Your task to perform on an android device: turn off smart reply in the gmail app Image 0: 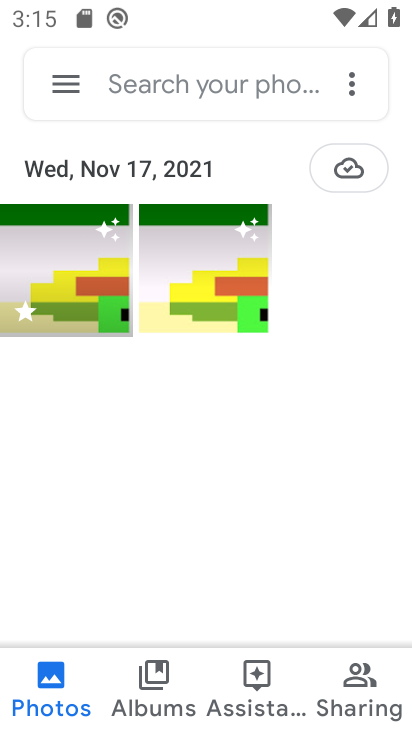
Step 0: press home button
Your task to perform on an android device: turn off smart reply in the gmail app Image 1: 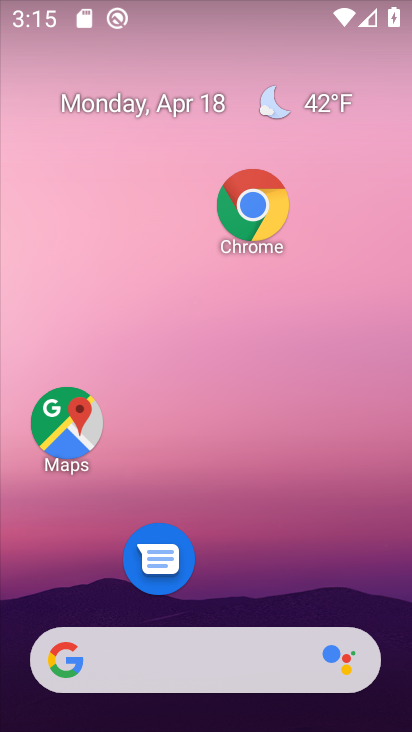
Step 1: drag from (169, 608) to (236, 219)
Your task to perform on an android device: turn off smart reply in the gmail app Image 2: 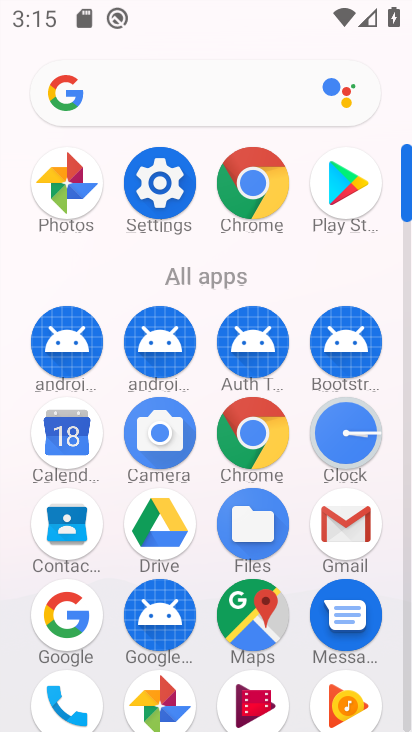
Step 2: click (324, 498)
Your task to perform on an android device: turn off smart reply in the gmail app Image 3: 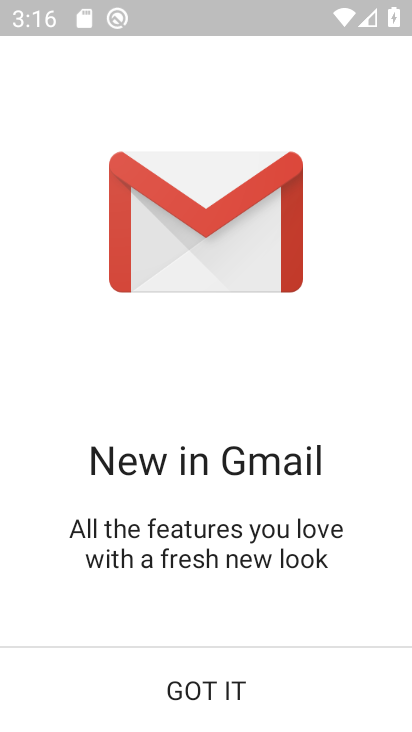
Step 3: click (219, 693)
Your task to perform on an android device: turn off smart reply in the gmail app Image 4: 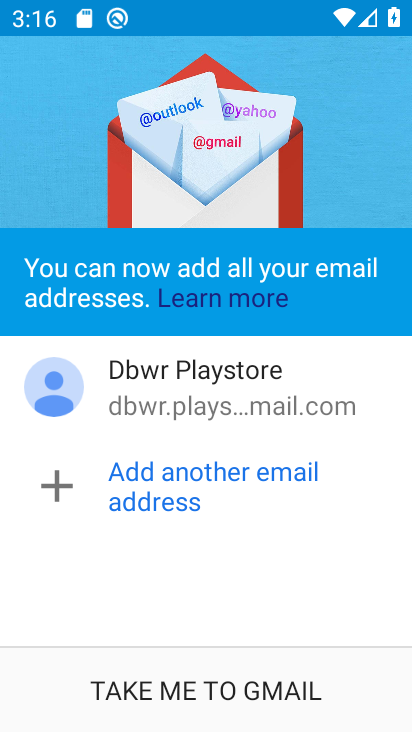
Step 4: click (230, 690)
Your task to perform on an android device: turn off smart reply in the gmail app Image 5: 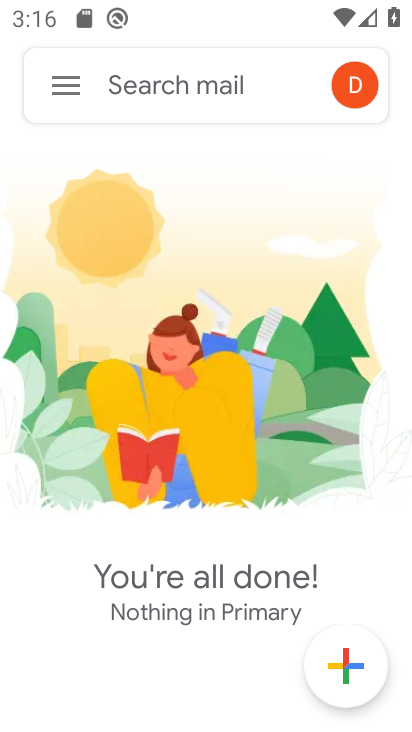
Step 5: click (62, 87)
Your task to perform on an android device: turn off smart reply in the gmail app Image 6: 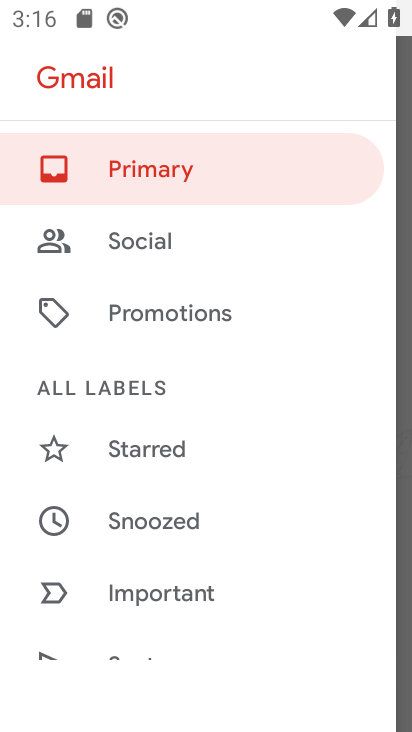
Step 6: drag from (140, 539) to (254, 222)
Your task to perform on an android device: turn off smart reply in the gmail app Image 7: 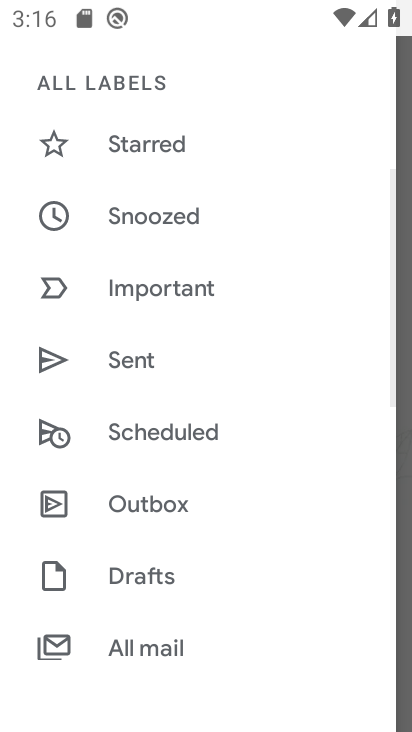
Step 7: drag from (283, 371) to (291, 178)
Your task to perform on an android device: turn off smart reply in the gmail app Image 8: 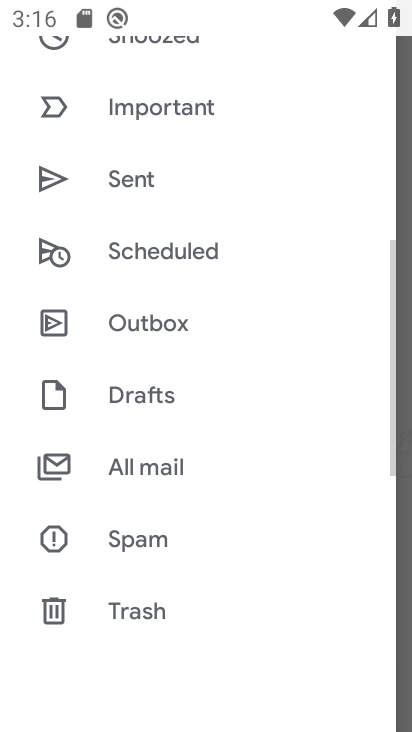
Step 8: drag from (273, 458) to (289, 172)
Your task to perform on an android device: turn off smart reply in the gmail app Image 9: 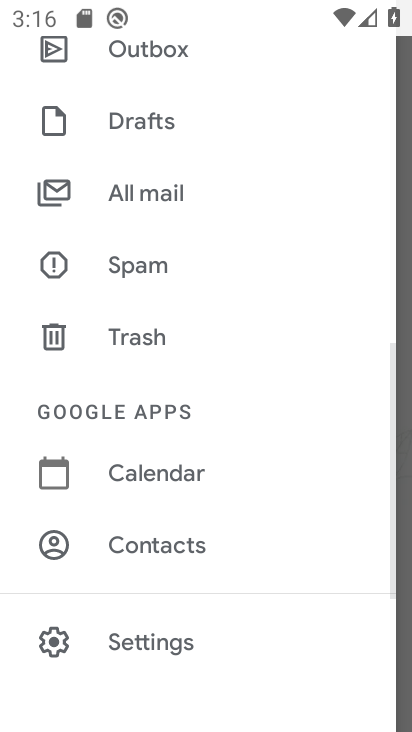
Step 9: drag from (183, 539) to (212, 322)
Your task to perform on an android device: turn off smart reply in the gmail app Image 10: 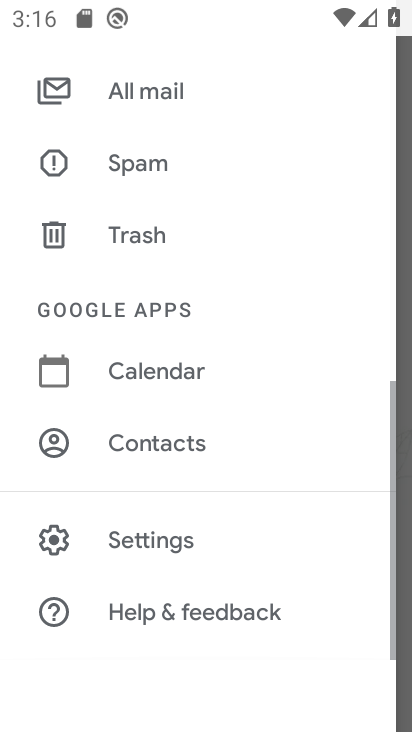
Step 10: click (159, 534)
Your task to perform on an android device: turn off smart reply in the gmail app Image 11: 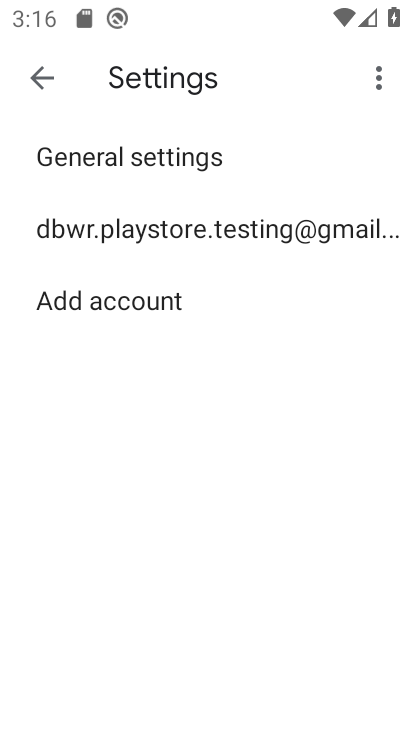
Step 11: click (160, 236)
Your task to perform on an android device: turn off smart reply in the gmail app Image 12: 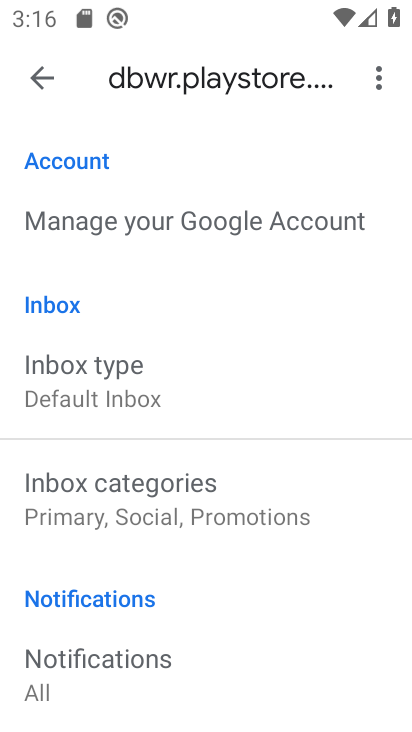
Step 12: click (70, 385)
Your task to perform on an android device: turn off smart reply in the gmail app Image 13: 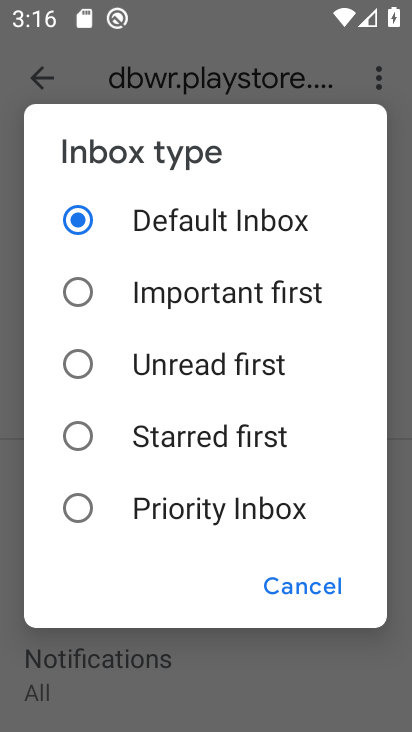
Step 13: click (324, 576)
Your task to perform on an android device: turn off smart reply in the gmail app Image 14: 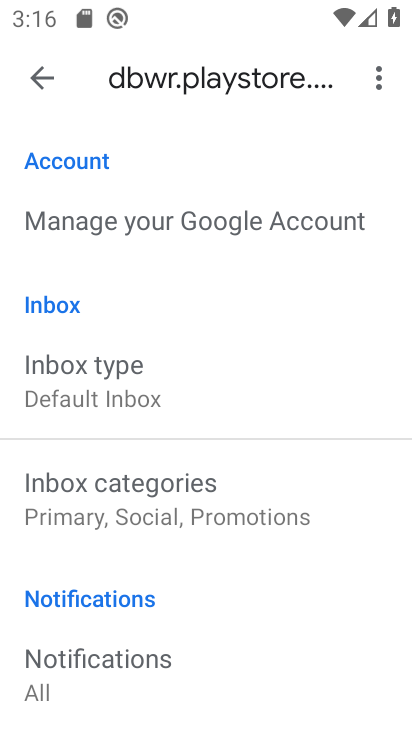
Step 14: drag from (121, 551) to (138, 290)
Your task to perform on an android device: turn off smart reply in the gmail app Image 15: 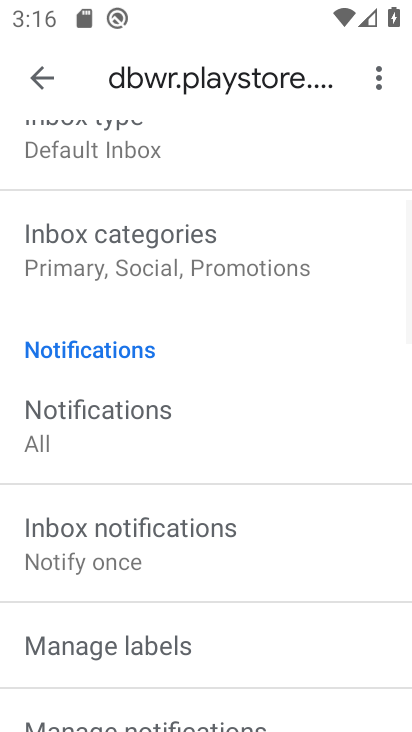
Step 15: drag from (161, 583) to (175, 355)
Your task to perform on an android device: turn off smart reply in the gmail app Image 16: 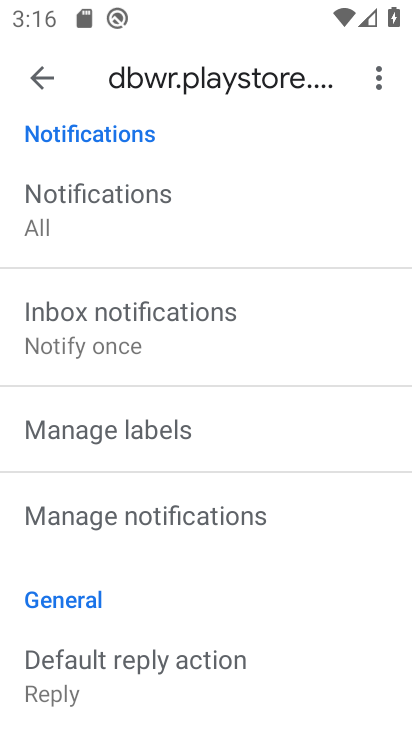
Step 16: drag from (186, 587) to (235, 326)
Your task to perform on an android device: turn off smart reply in the gmail app Image 17: 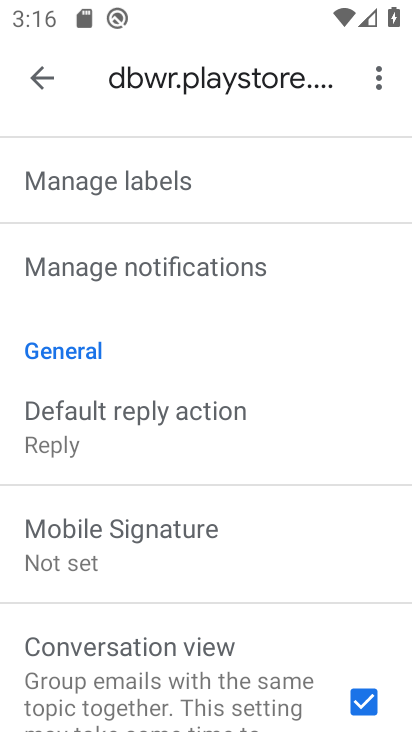
Step 17: drag from (276, 580) to (283, 317)
Your task to perform on an android device: turn off smart reply in the gmail app Image 18: 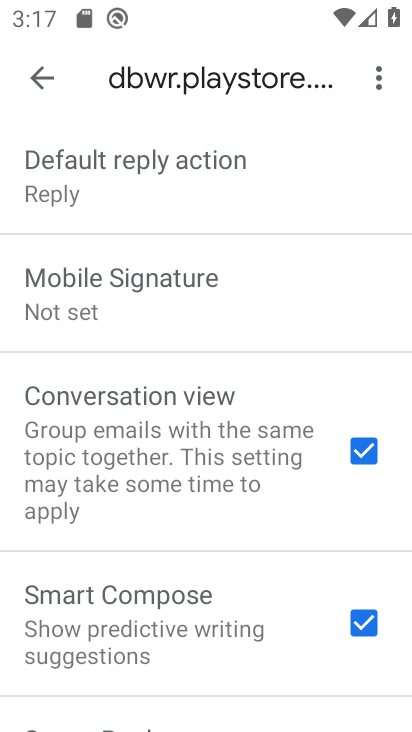
Step 18: drag from (153, 651) to (219, 337)
Your task to perform on an android device: turn off smart reply in the gmail app Image 19: 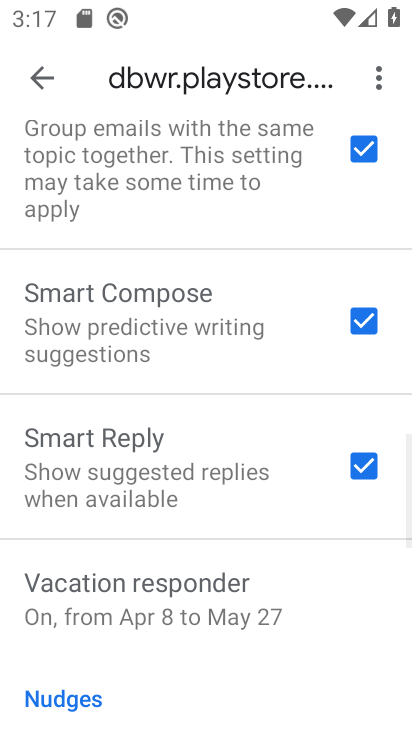
Step 19: drag from (178, 654) to (213, 315)
Your task to perform on an android device: turn off smart reply in the gmail app Image 20: 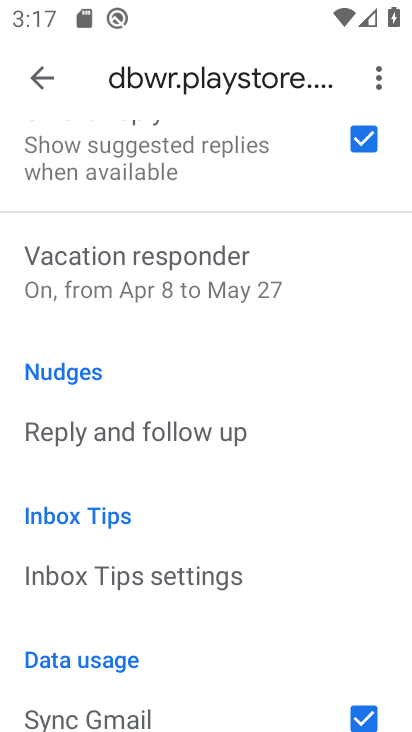
Step 20: click (363, 146)
Your task to perform on an android device: turn off smart reply in the gmail app Image 21: 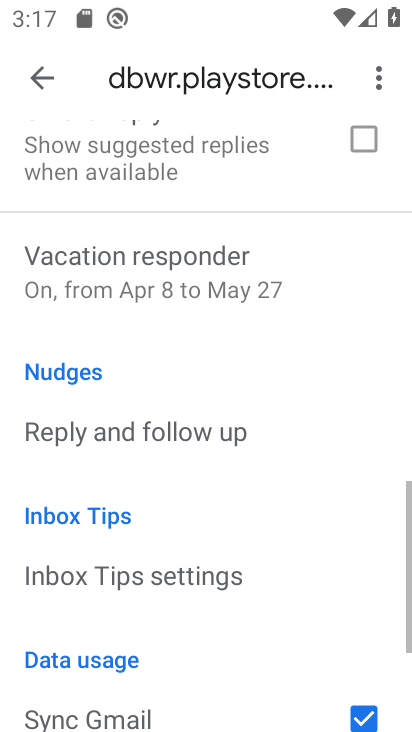
Step 21: task complete